Your task to perform on an android device: turn notification dots on Image 0: 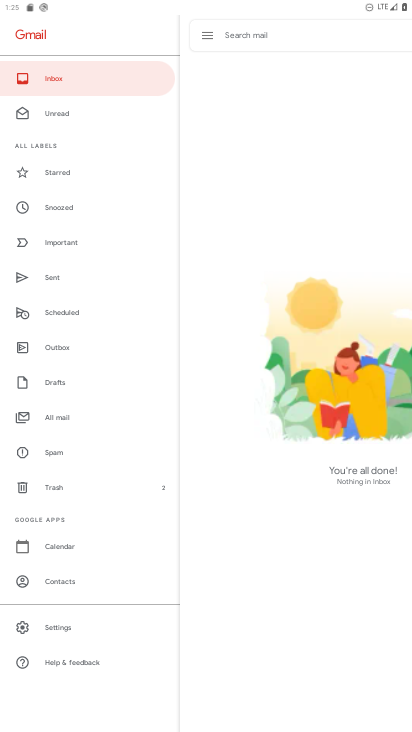
Step 0: drag from (154, 729) to (255, 396)
Your task to perform on an android device: turn notification dots on Image 1: 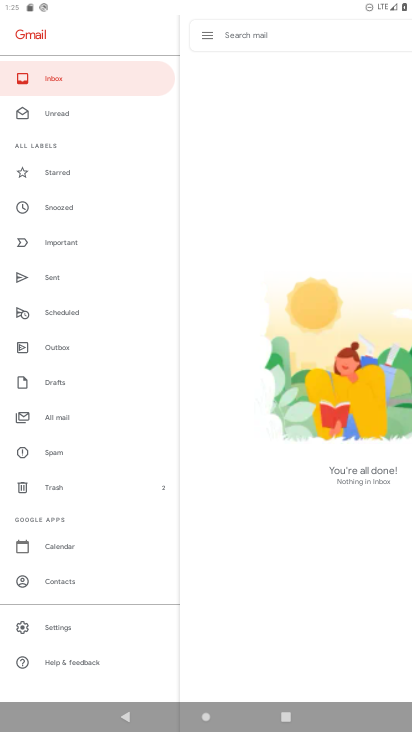
Step 1: click (211, 714)
Your task to perform on an android device: turn notification dots on Image 2: 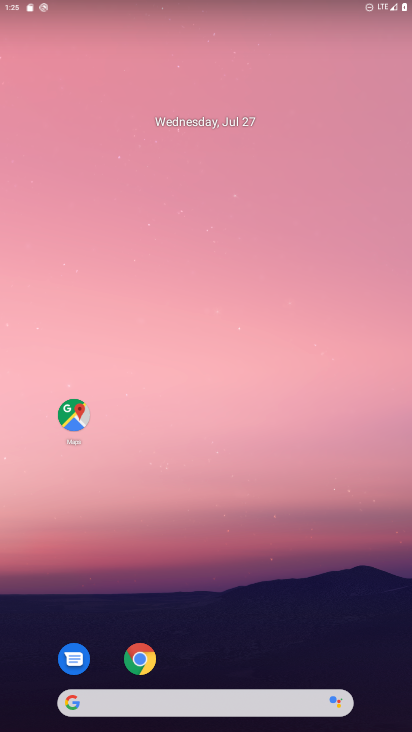
Step 2: drag from (248, 554) to (284, 3)
Your task to perform on an android device: turn notification dots on Image 3: 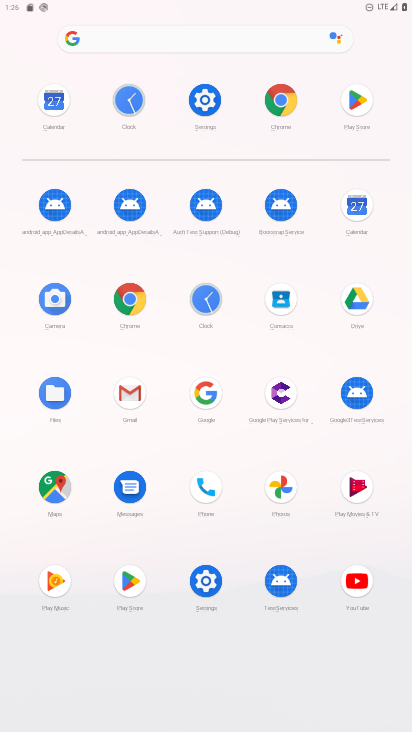
Step 3: click (204, 590)
Your task to perform on an android device: turn notification dots on Image 4: 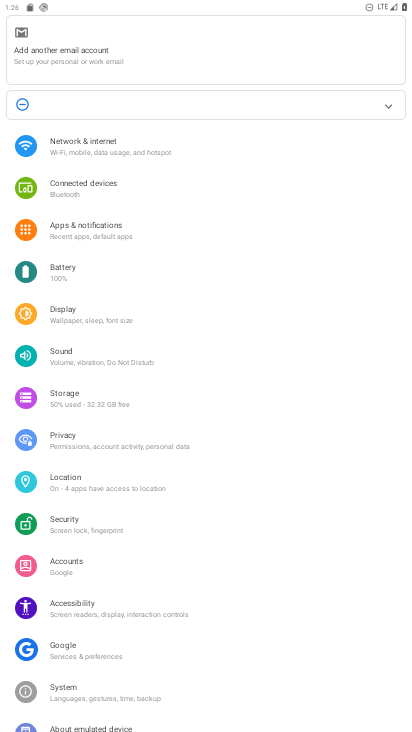
Step 4: click (90, 225)
Your task to perform on an android device: turn notification dots on Image 5: 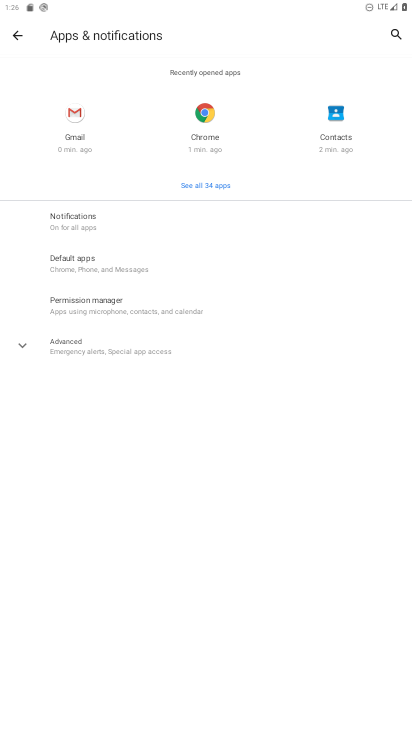
Step 5: click (107, 217)
Your task to perform on an android device: turn notification dots on Image 6: 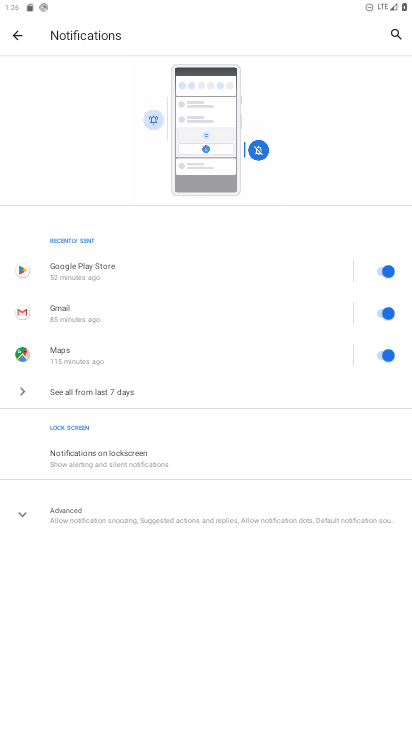
Step 6: click (82, 517)
Your task to perform on an android device: turn notification dots on Image 7: 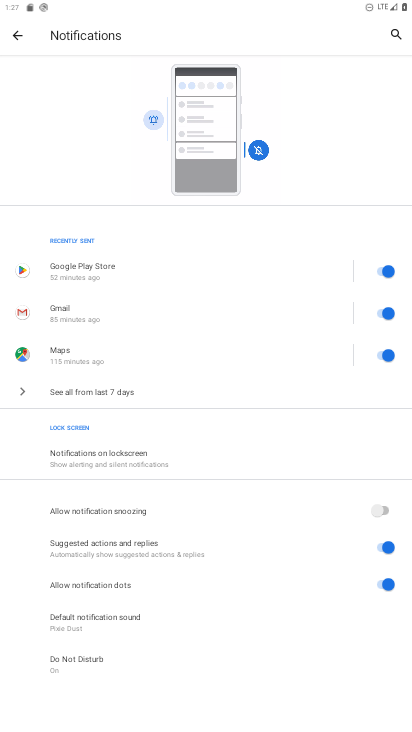
Step 7: click (385, 545)
Your task to perform on an android device: turn notification dots on Image 8: 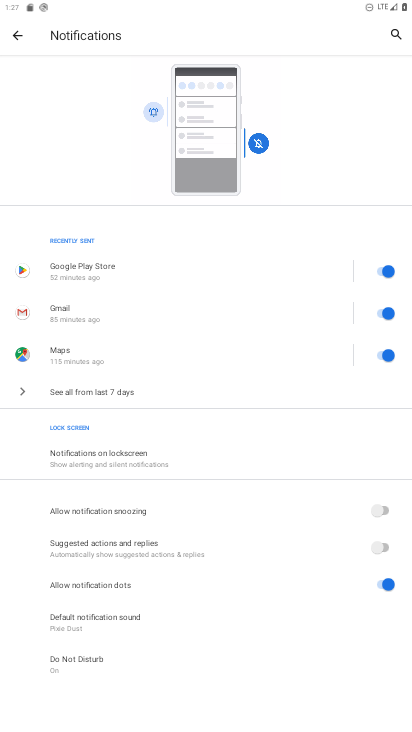
Step 8: click (386, 544)
Your task to perform on an android device: turn notification dots on Image 9: 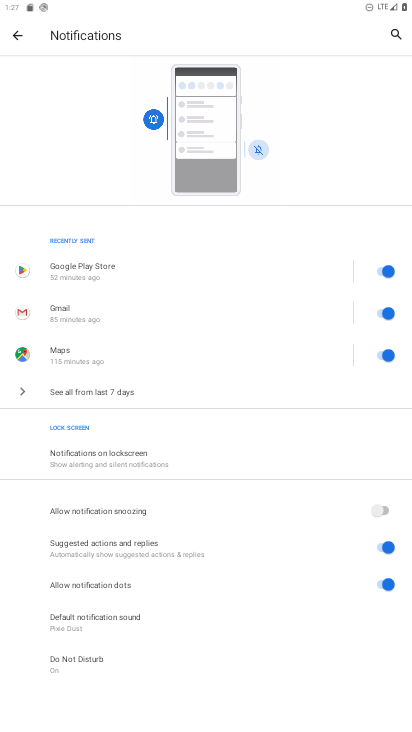
Step 9: click (391, 587)
Your task to perform on an android device: turn notification dots on Image 10: 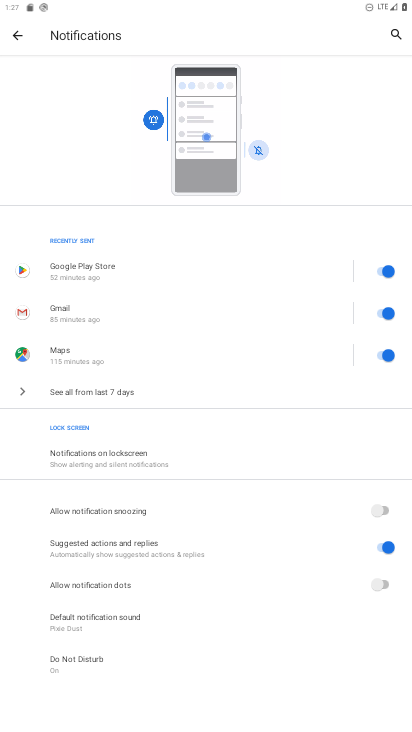
Step 10: click (389, 587)
Your task to perform on an android device: turn notification dots on Image 11: 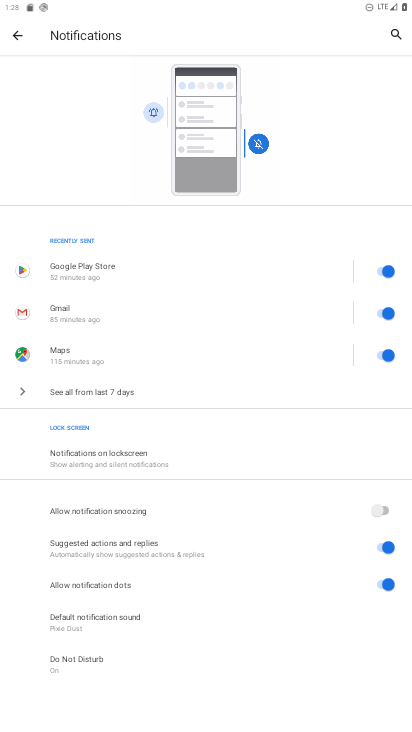
Step 11: task complete